Your task to perform on an android device: uninstall "The Home Depot" Image 0: 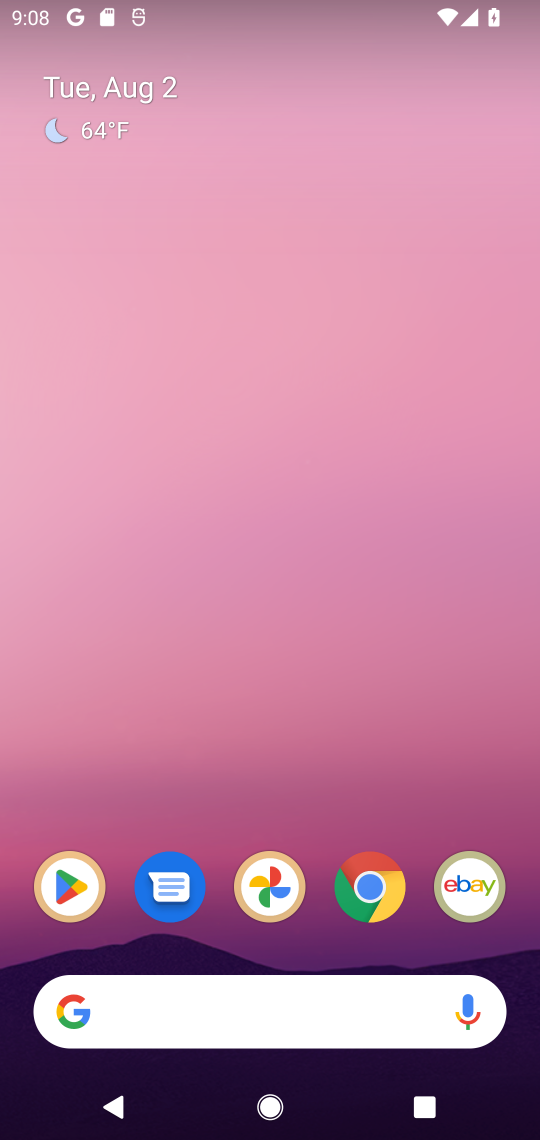
Step 0: click (77, 884)
Your task to perform on an android device: uninstall "The Home Depot" Image 1: 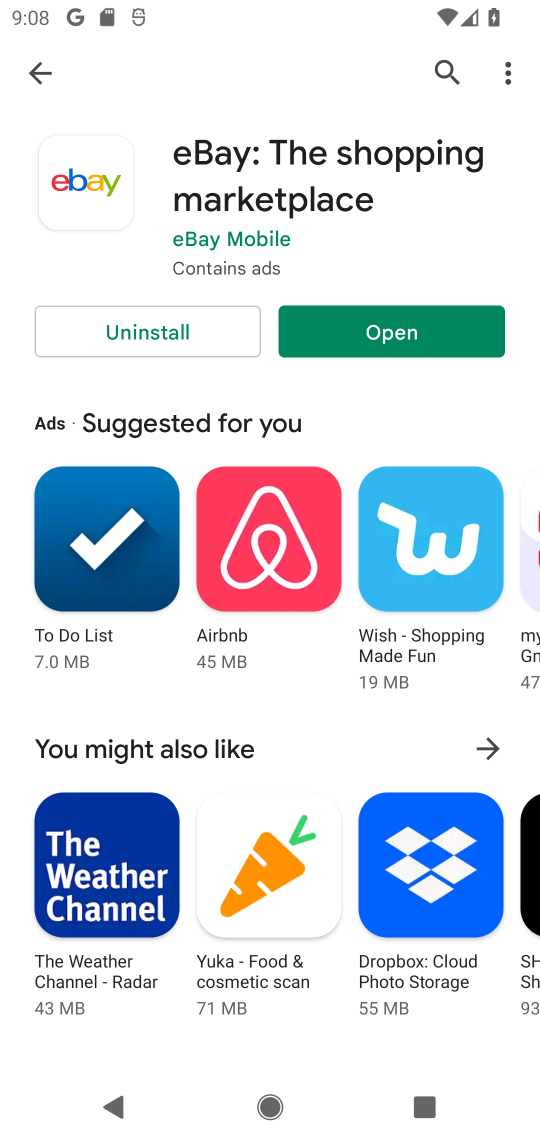
Step 1: click (456, 62)
Your task to perform on an android device: uninstall "The Home Depot" Image 2: 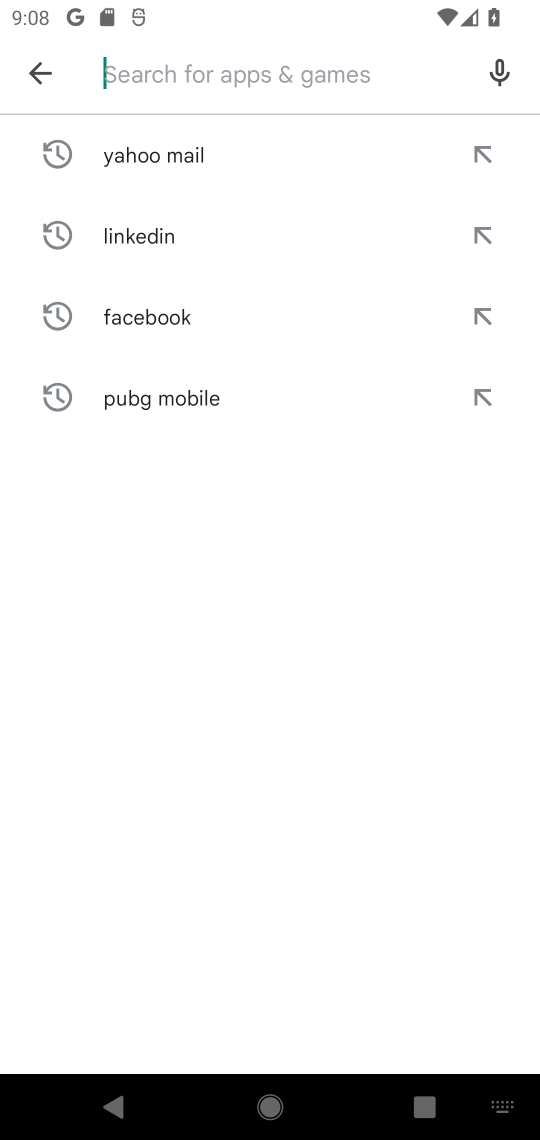
Step 2: type "the home depot"
Your task to perform on an android device: uninstall "The Home Depot" Image 3: 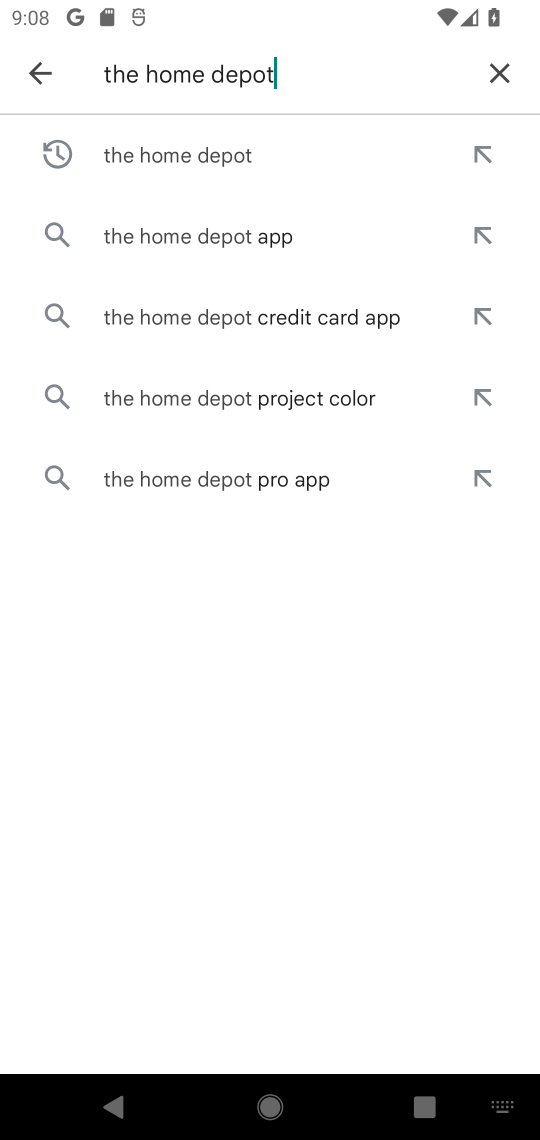
Step 3: click (272, 157)
Your task to perform on an android device: uninstall "The Home Depot" Image 4: 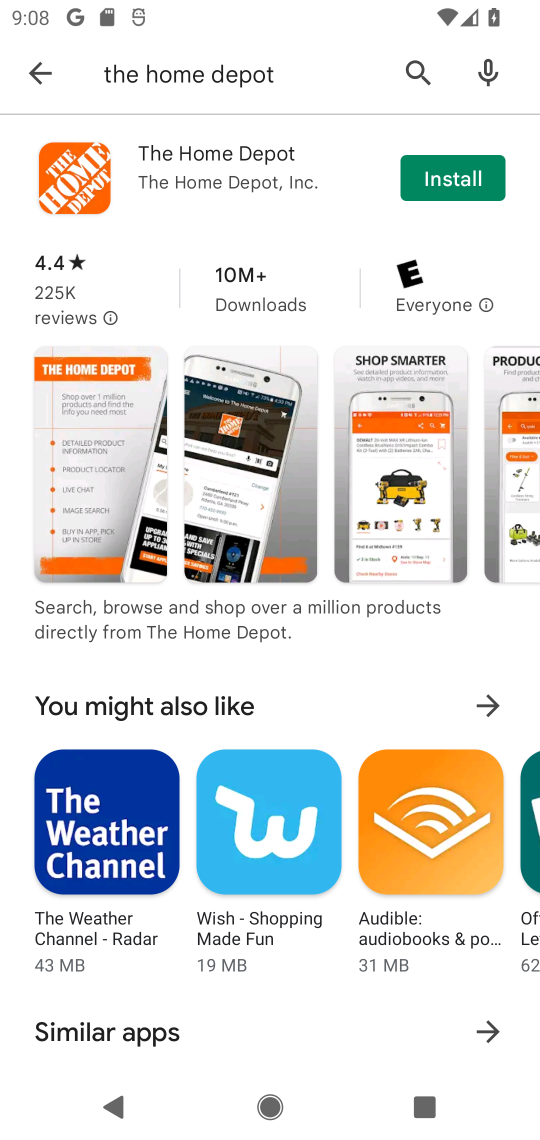
Step 4: click (249, 146)
Your task to perform on an android device: uninstall "The Home Depot" Image 5: 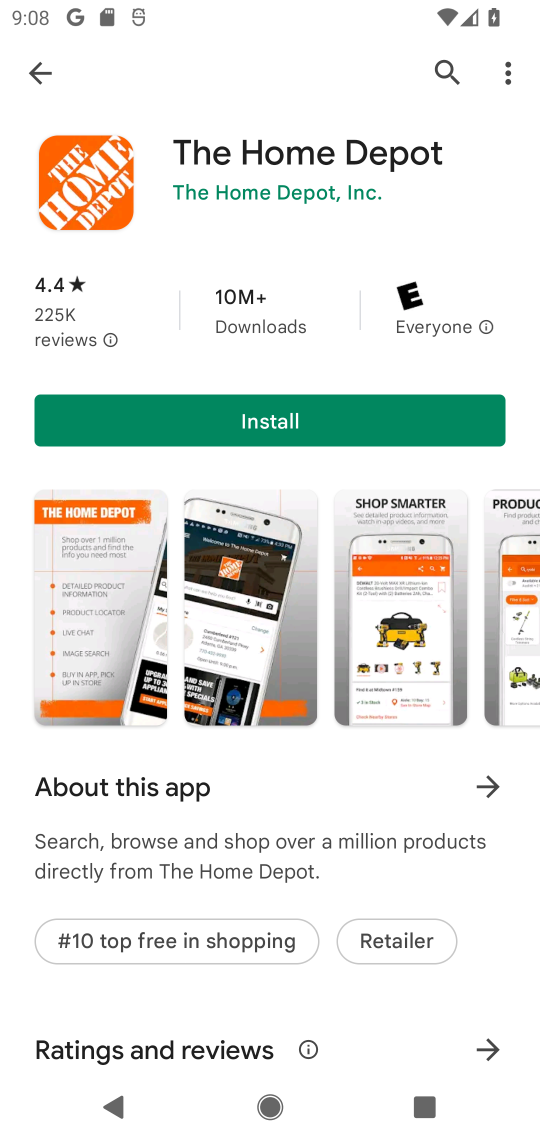
Step 5: task complete